Your task to perform on an android device: turn on priority inbox in the gmail app Image 0: 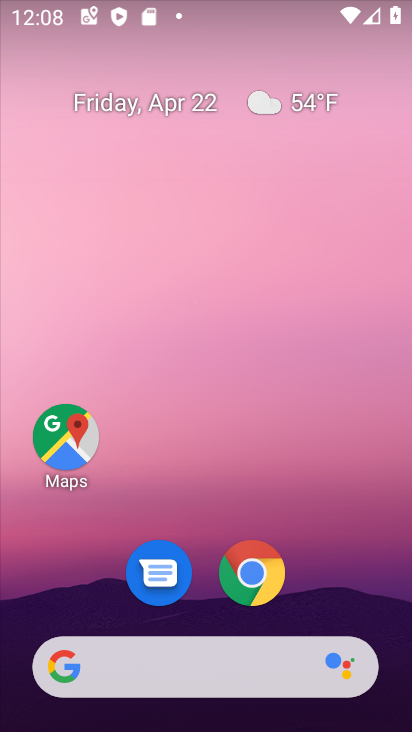
Step 0: drag from (338, 507) to (332, 168)
Your task to perform on an android device: turn on priority inbox in the gmail app Image 1: 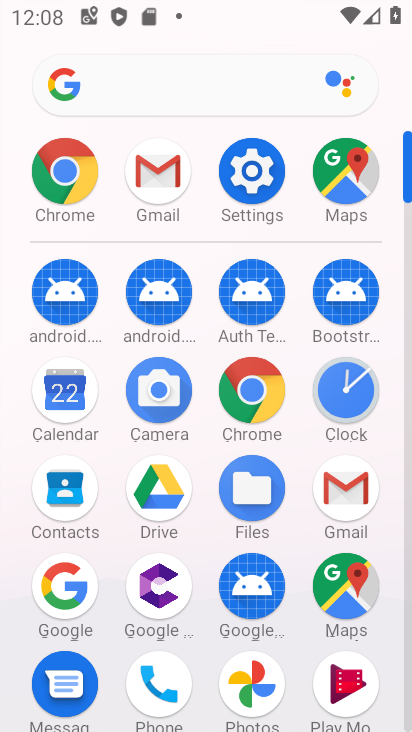
Step 1: click (349, 489)
Your task to perform on an android device: turn on priority inbox in the gmail app Image 2: 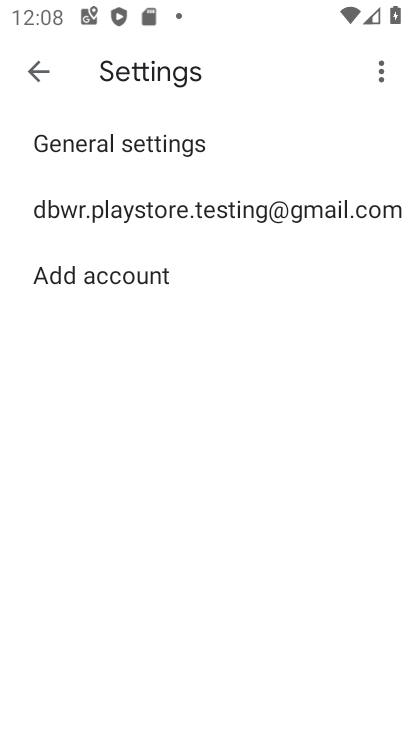
Step 2: click (154, 209)
Your task to perform on an android device: turn on priority inbox in the gmail app Image 3: 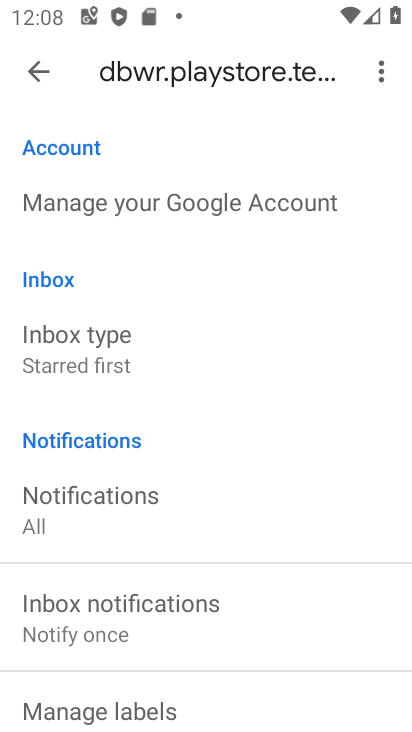
Step 3: click (64, 371)
Your task to perform on an android device: turn on priority inbox in the gmail app Image 4: 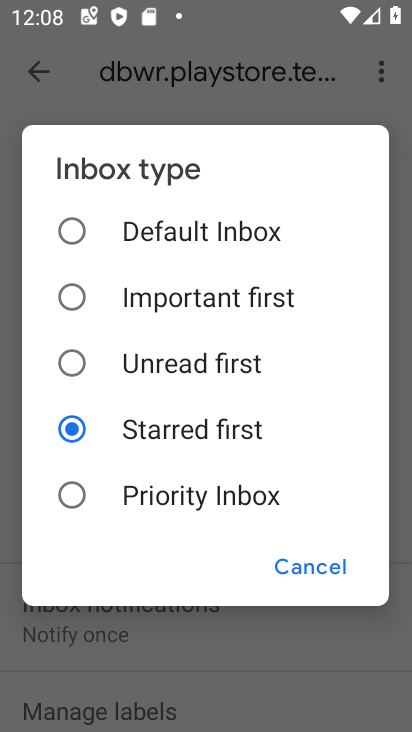
Step 4: click (132, 492)
Your task to perform on an android device: turn on priority inbox in the gmail app Image 5: 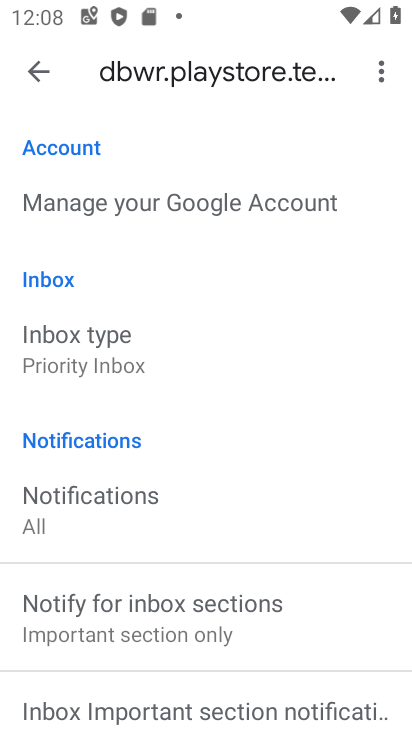
Step 5: task complete